Your task to perform on an android device: check data usage Image 0: 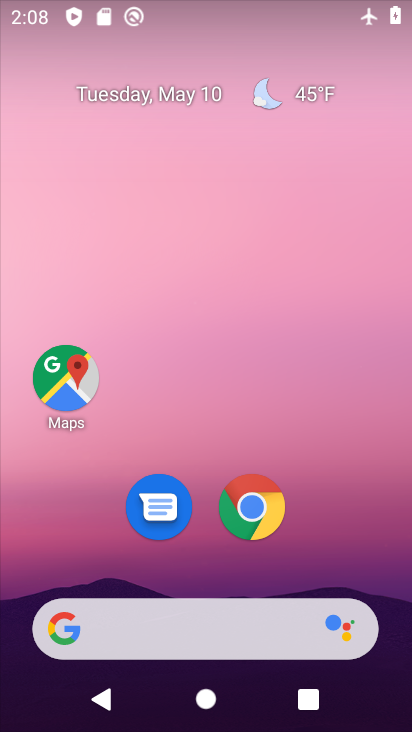
Step 0: drag from (325, 513) to (161, 172)
Your task to perform on an android device: check data usage Image 1: 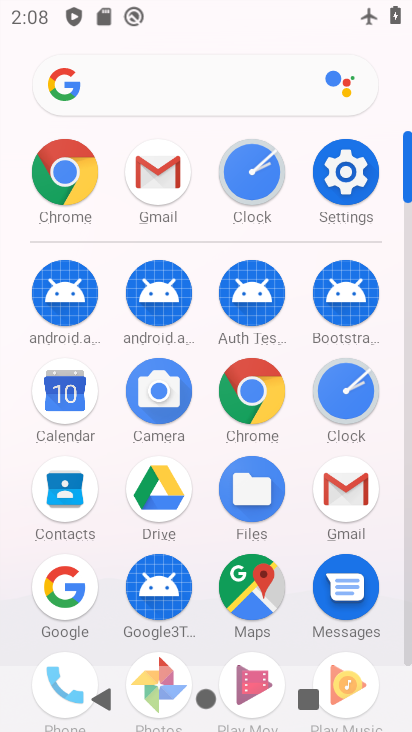
Step 1: click (359, 183)
Your task to perform on an android device: check data usage Image 2: 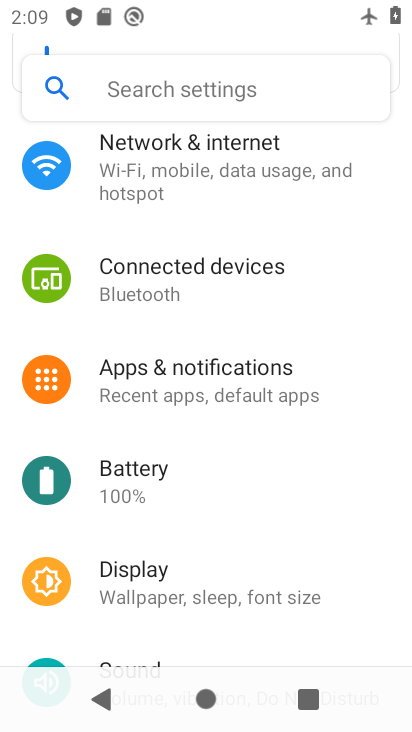
Step 2: click (244, 163)
Your task to perform on an android device: check data usage Image 3: 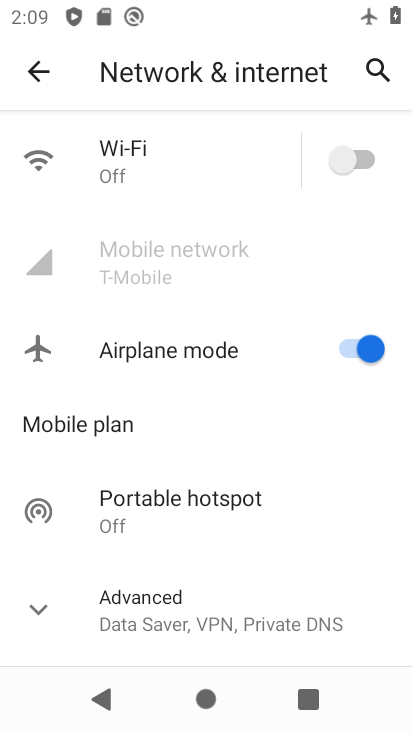
Step 3: click (131, 267)
Your task to perform on an android device: check data usage Image 4: 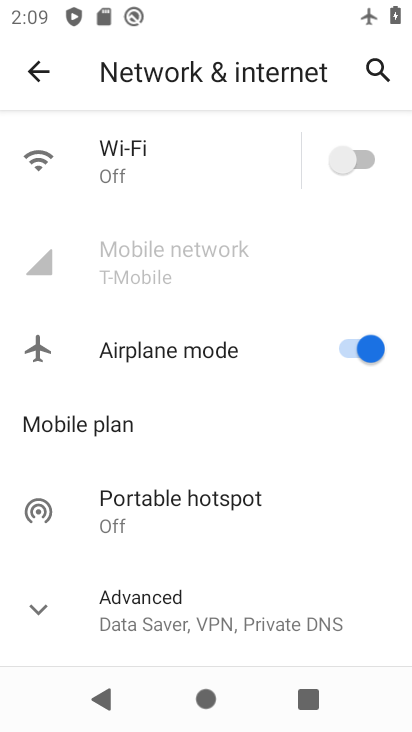
Step 4: click (126, 461)
Your task to perform on an android device: check data usage Image 5: 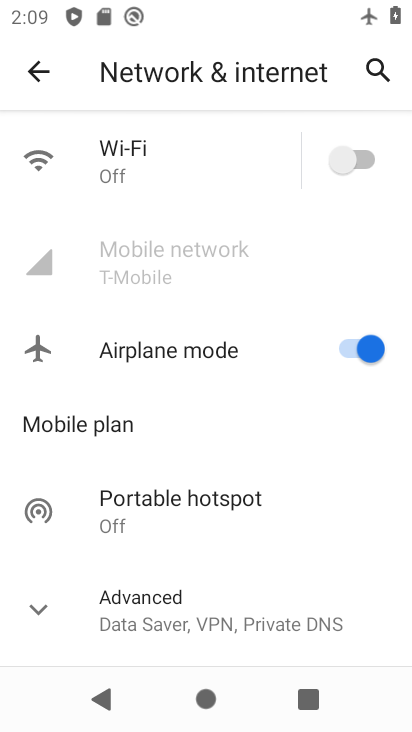
Step 5: click (99, 166)
Your task to perform on an android device: check data usage Image 6: 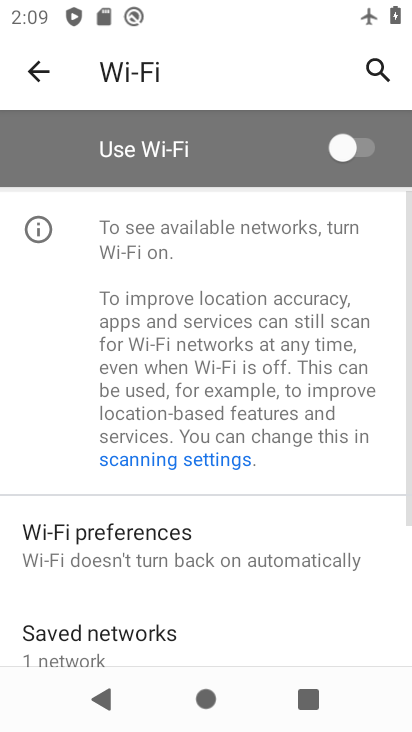
Step 6: drag from (111, 585) to (150, 238)
Your task to perform on an android device: check data usage Image 7: 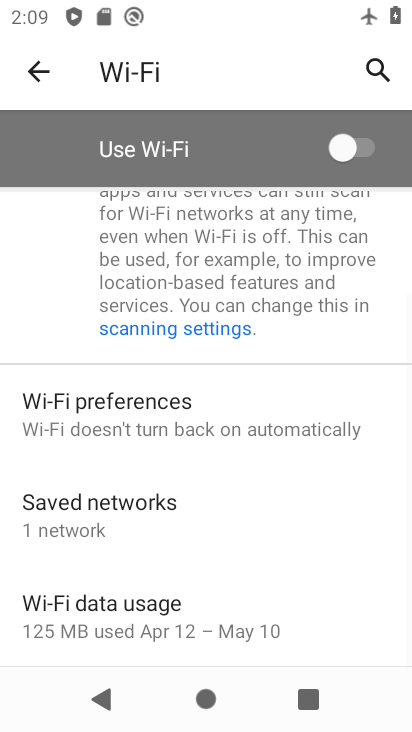
Step 7: click (138, 617)
Your task to perform on an android device: check data usage Image 8: 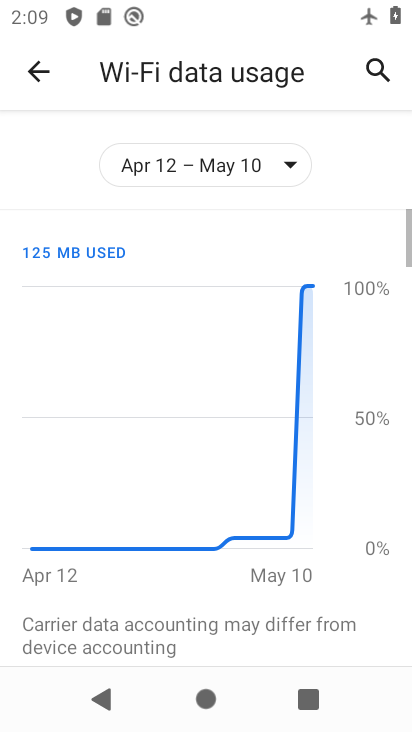
Step 8: task complete